Your task to perform on an android device: Open CNN.com Image 0: 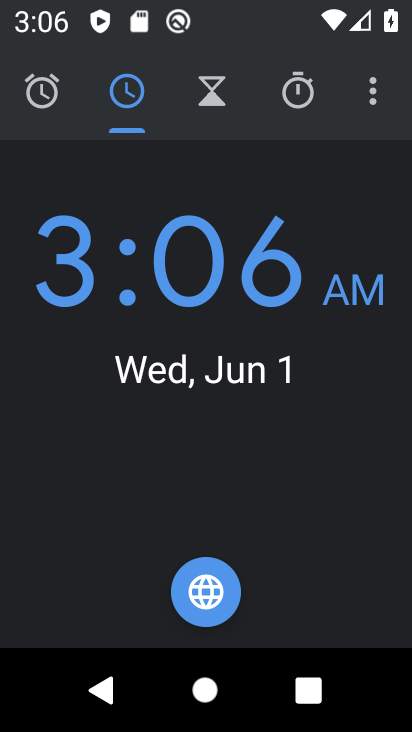
Step 0: press home button
Your task to perform on an android device: Open CNN.com Image 1: 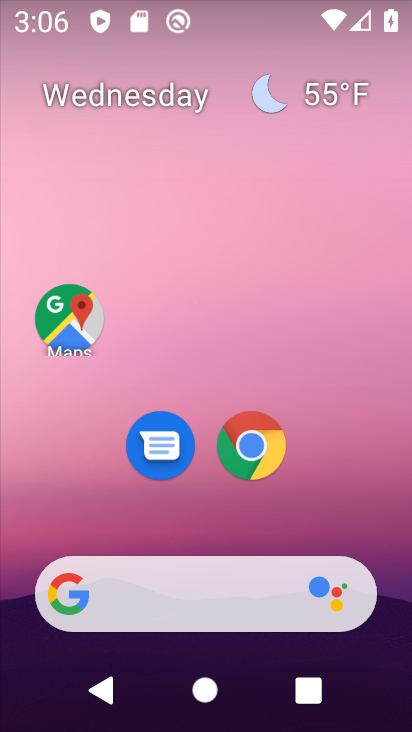
Step 1: click (254, 457)
Your task to perform on an android device: Open CNN.com Image 2: 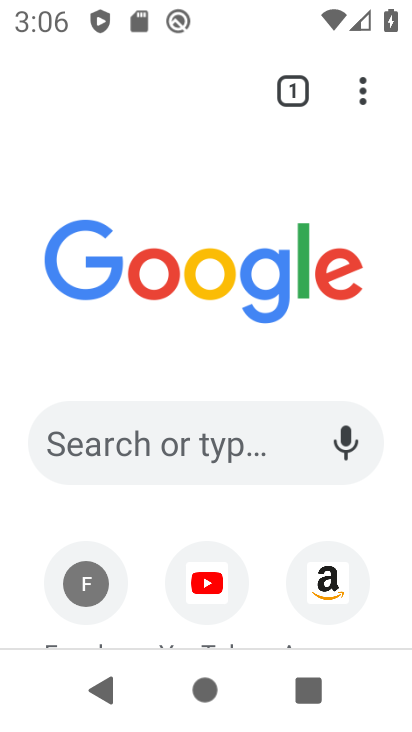
Step 2: click (291, 101)
Your task to perform on an android device: Open CNN.com Image 3: 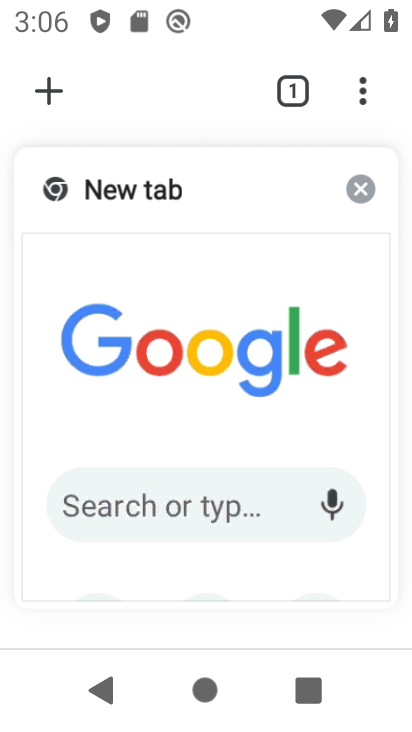
Step 3: click (265, 252)
Your task to perform on an android device: Open CNN.com Image 4: 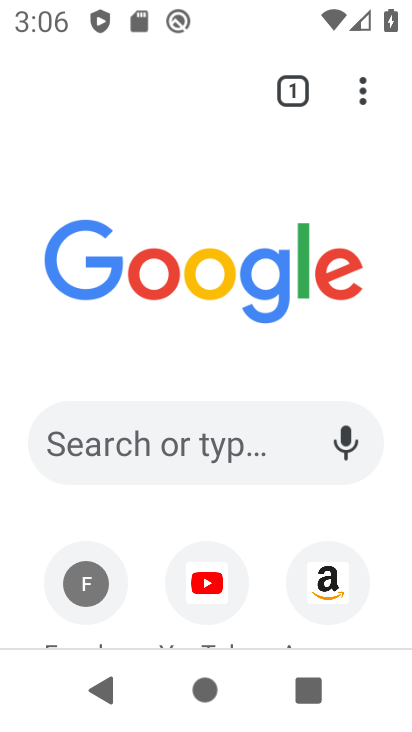
Step 4: click (165, 434)
Your task to perform on an android device: Open CNN.com Image 5: 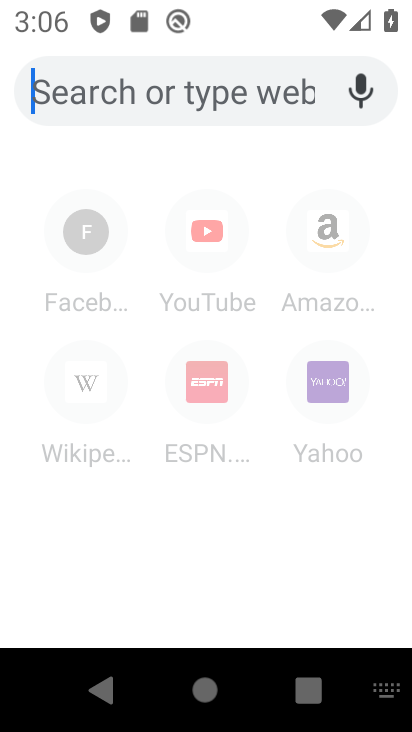
Step 5: type "CNN.com"
Your task to perform on an android device: Open CNN.com Image 6: 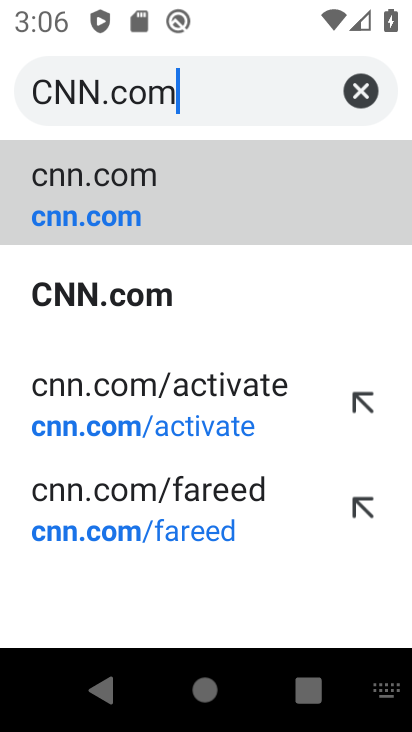
Step 6: click (345, 222)
Your task to perform on an android device: Open CNN.com Image 7: 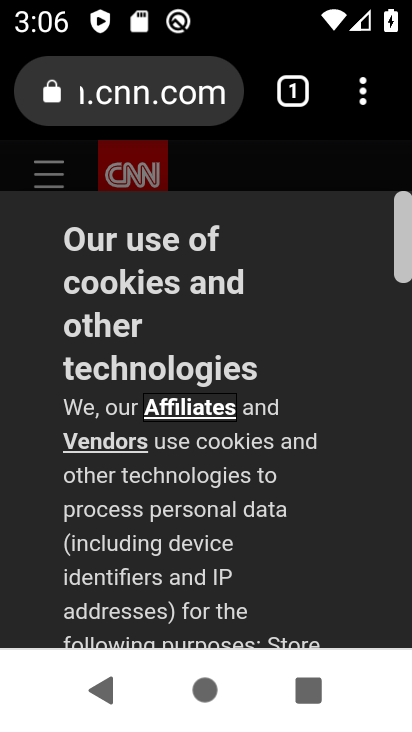
Step 7: task complete